Your task to perform on an android device: move a message to another label in the gmail app Image 0: 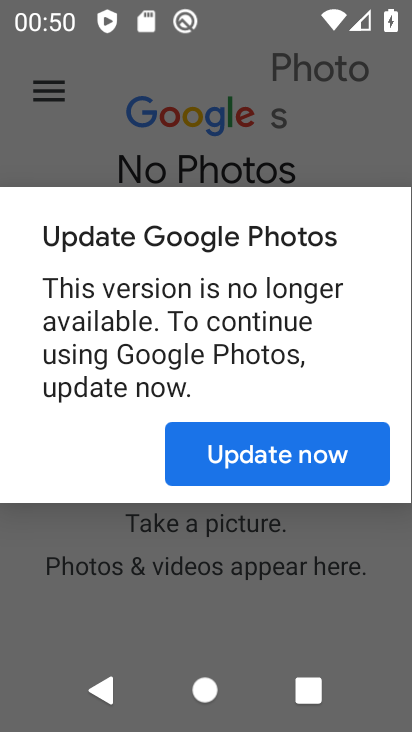
Step 0: press home button
Your task to perform on an android device: move a message to another label in the gmail app Image 1: 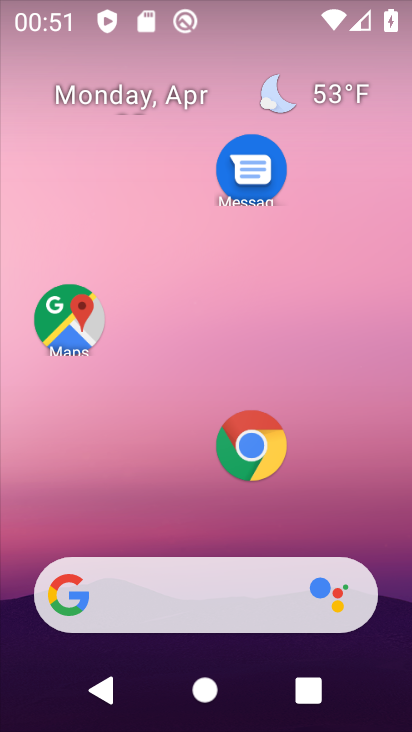
Step 1: drag from (199, 524) to (255, 4)
Your task to perform on an android device: move a message to another label in the gmail app Image 2: 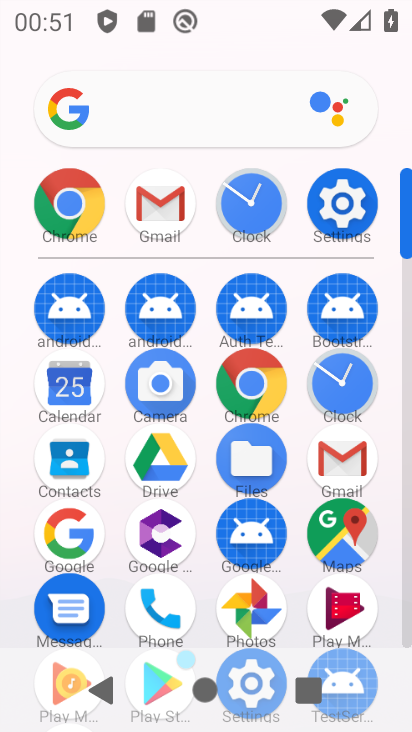
Step 2: click (359, 455)
Your task to perform on an android device: move a message to another label in the gmail app Image 3: 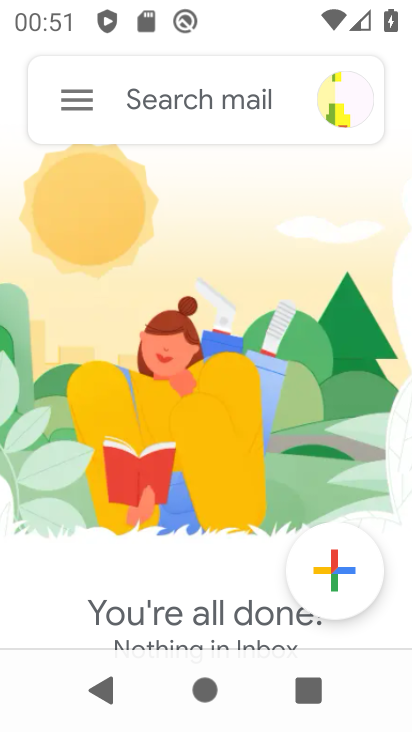
Step 3: click (80, 103)
Your task to perform on an android device: move a message to another label in the gmail app Image 4: 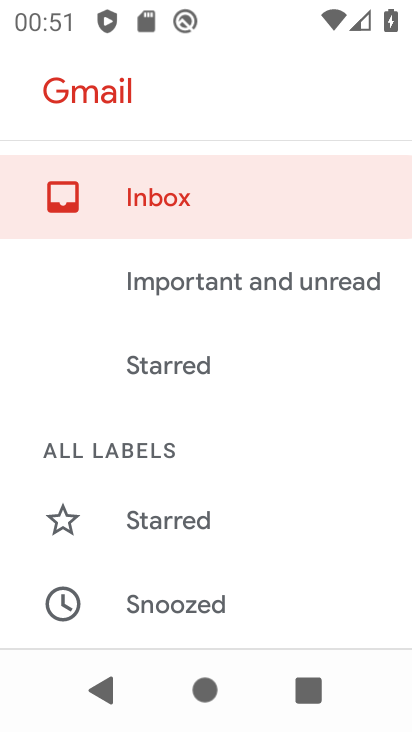
Step 4: drag from (141, 573) to (236, 123)
Your task to perform on an android device: move a message to another label in the gmail app Image 5: 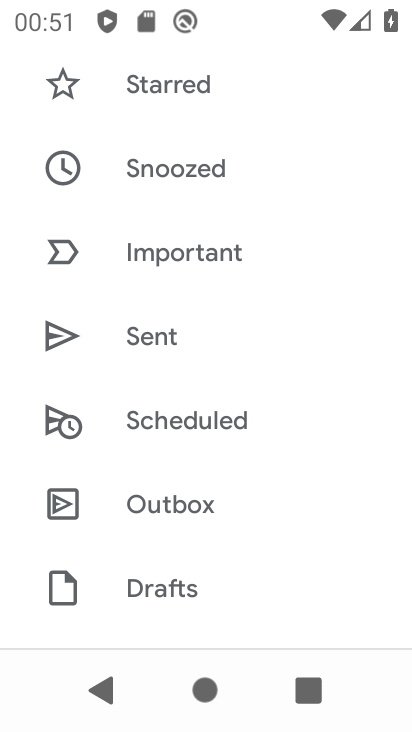
Step 5: drag from (202, 537) to (253, 98)
Your task to perform on an android device: move a message to another label in the gmail app Image 6: 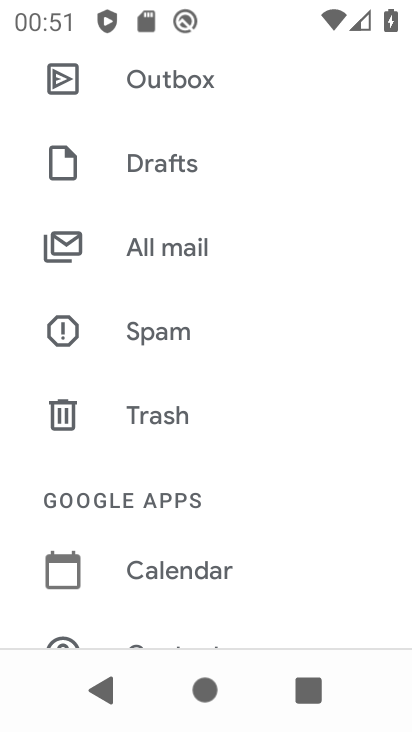
Step 6: drag from (166, 507) to (177, 418)
Your task to perform on an android device: move a message to another label in the gmail app Image 7: 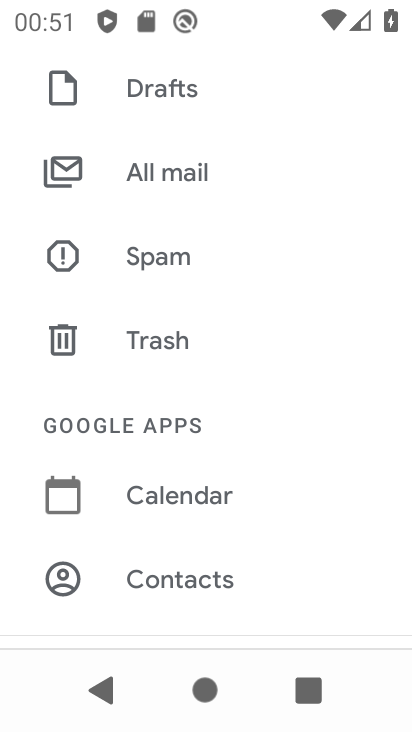
Step 7: click (165, 189)
Your task to perform on an android device: move a message to another label in the gmail app Image 8: 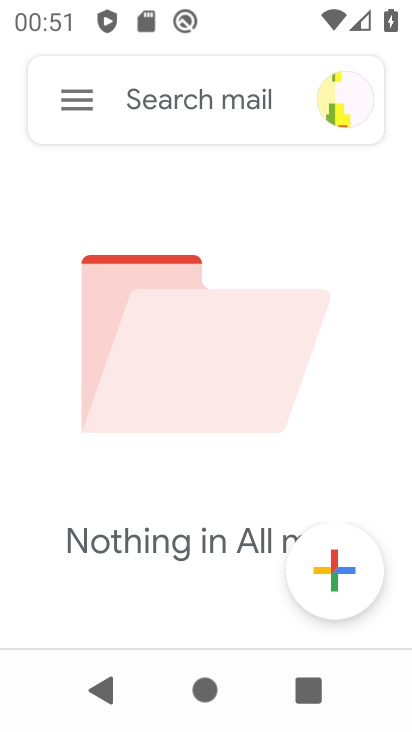
Step 8: task complete